Your task to perform on an android device: turn off picture-in-picture Image 0: 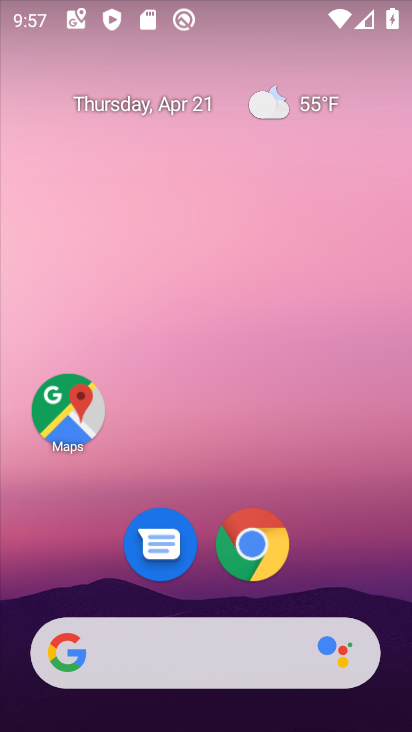
Step 0: drag from (312, 515) to (210, 0)
Your task to perform on an android device: turn off picture-in-picture Image 1: 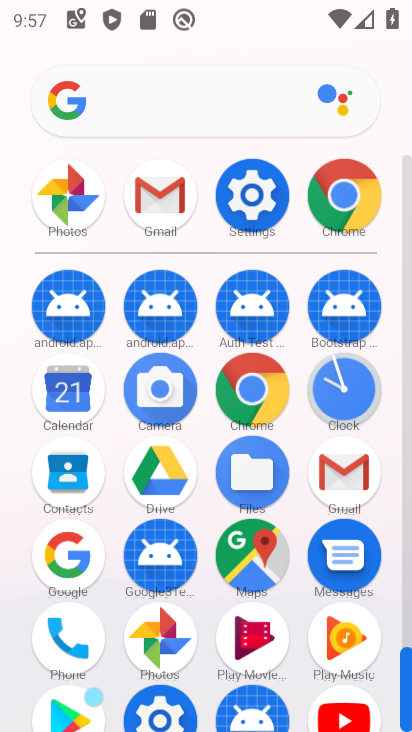
Step 1: click (245, 190)
Your task to perform on an android device: turn off picture-in-picture Image 2: 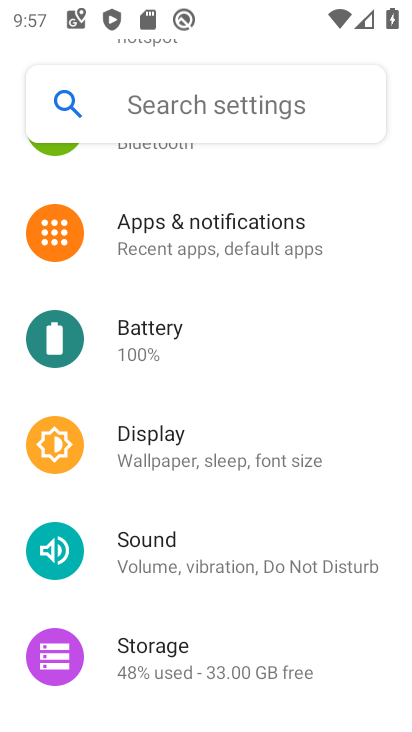
Step 2: click (252, 229)
Your task to perform on an android device: turn off picture-in-picture Image 3: 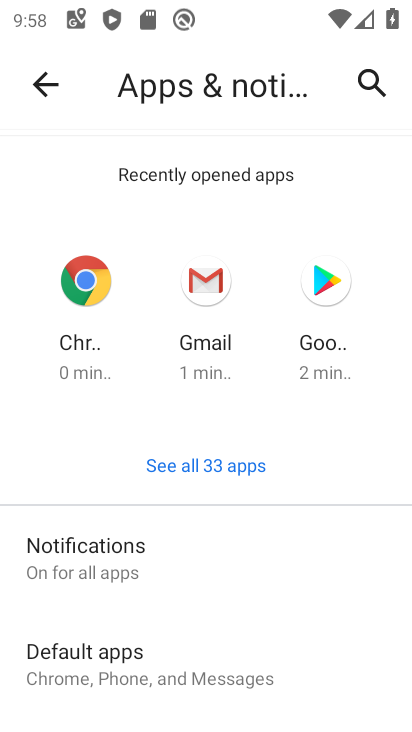
Step 3: drag from (239, 621) to (245, 155)
Your task to perform on an android device: turn off picture-in-picture Image 4: 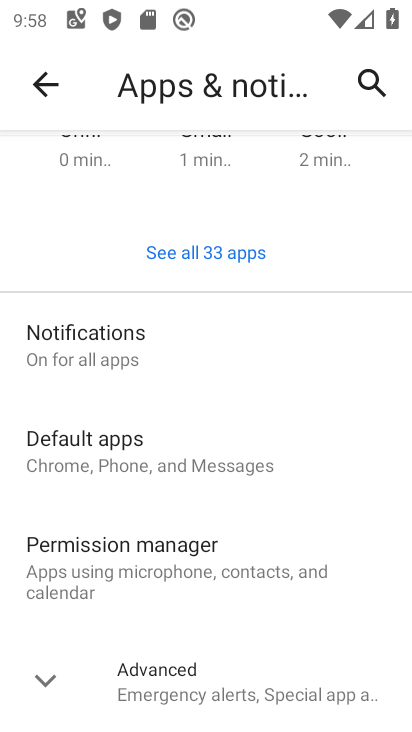
Step 4: drag from (258, 492) to (252, 140)
Your task to perform on an android device: turn off picture-in-picture Image 5: 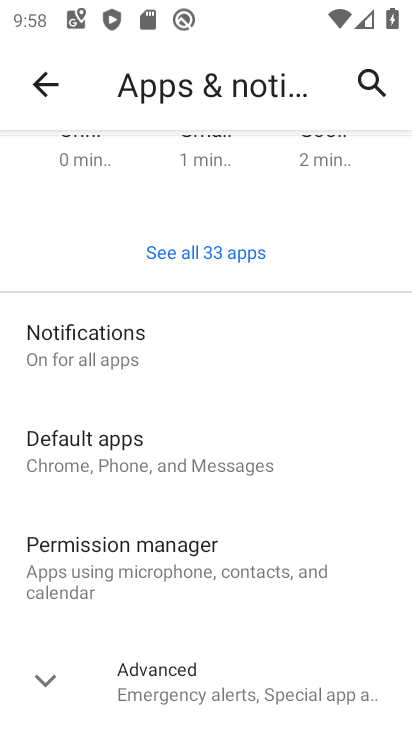
Step 5: drag from (247, 509) to (247, 198)
Your task to perform on an android device: turn off picture-in-picture Image 6: 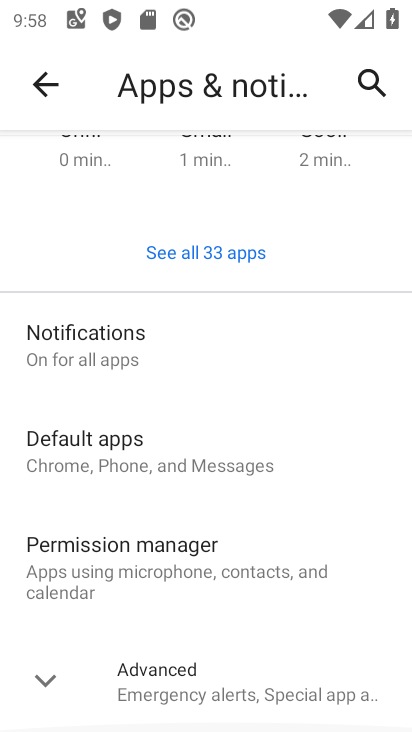
Step 6: click (41, 677)
Your task to perform on an android device: turn off picture-in-picture Image 7: 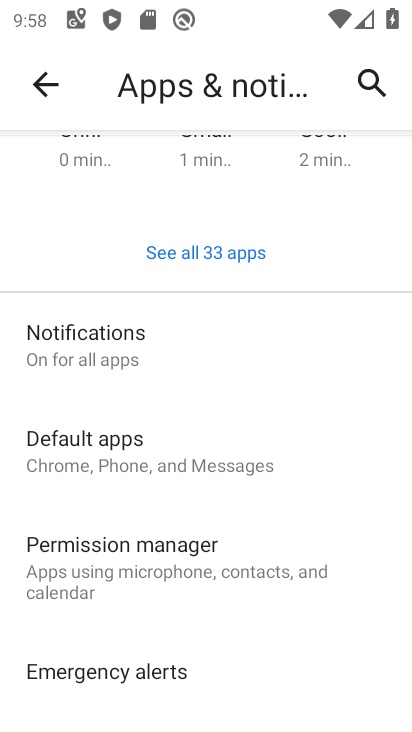
Step 7: drag from (259, 597) to (297, 184)
Your task to perform on an android device: turn off picture-in-picture Image 8: 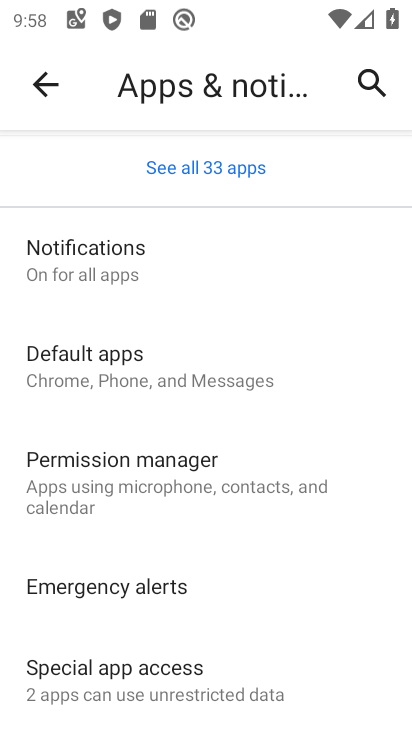
Step 8: click (208, 676)
Your task to perform on an android device: turn off picture-in-picture Image 9: 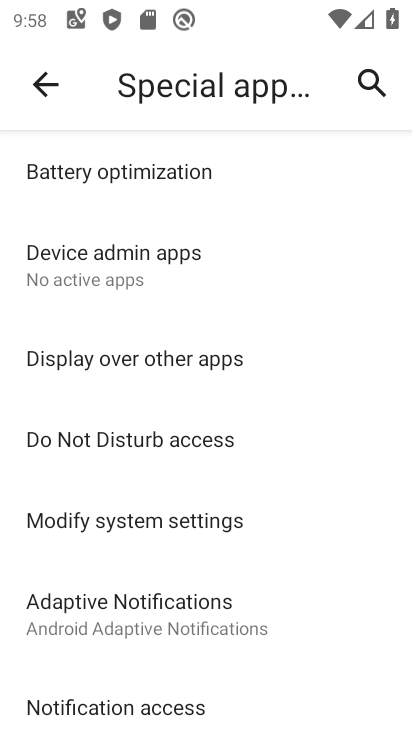
Step 9: drag from (268, 486) to (274, 240)
Your task to perform on an android device: turn off picture-in-picture Image 10: 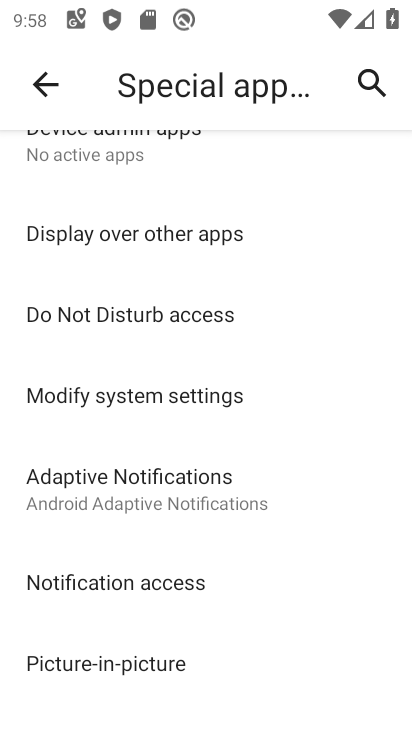
Step 10: drag from (255, 601) to (279, 242)
Your task to perform on an android device: turn off picture-in-picture Image 11: 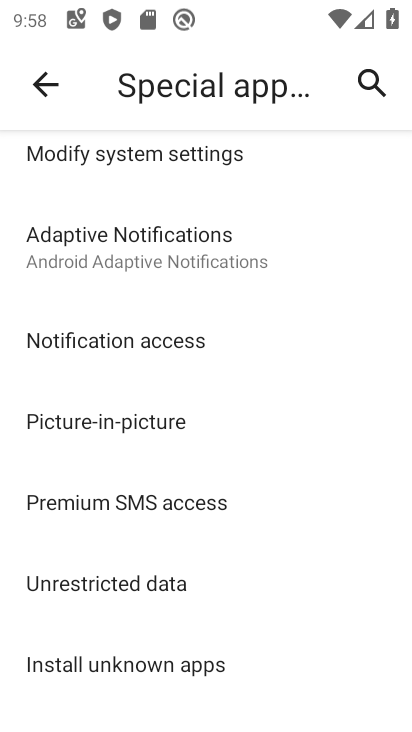
Step 11: click (138, 423)
Your task to perform on an android device: turn off picture-in-picture Image 12: 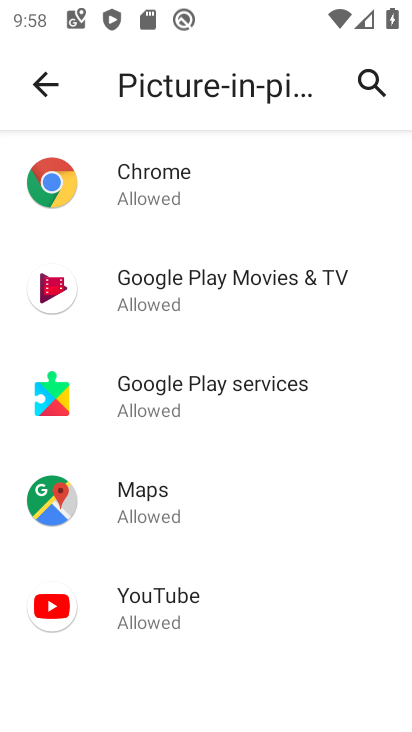
Step 12: click (197, 181)
Your task to perform on an android device: turn off picture-in-picture Image 13: 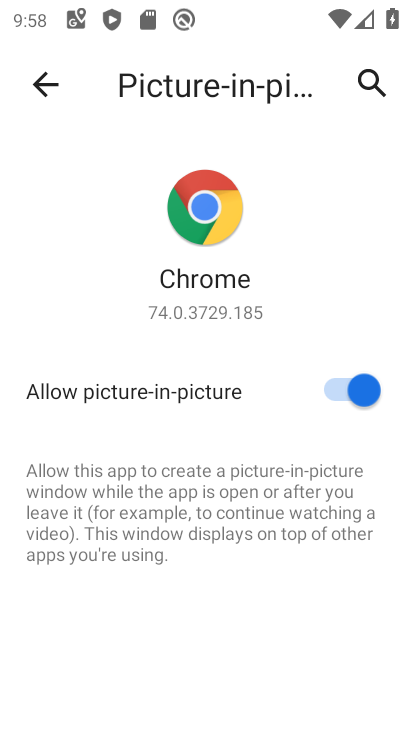
Step 13: click (330, 365)
Your task to perform on an android device: turn off picture-in-picture Image 14: 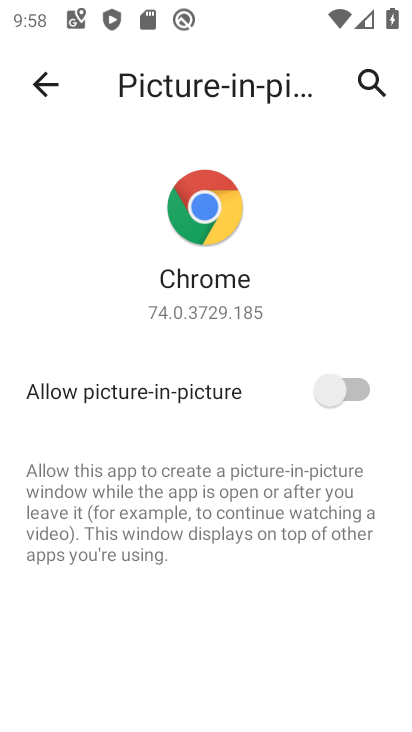
Step 14: click (31, 76)
Your task to perform on an android device: turn off picture-in-picture Image 15: 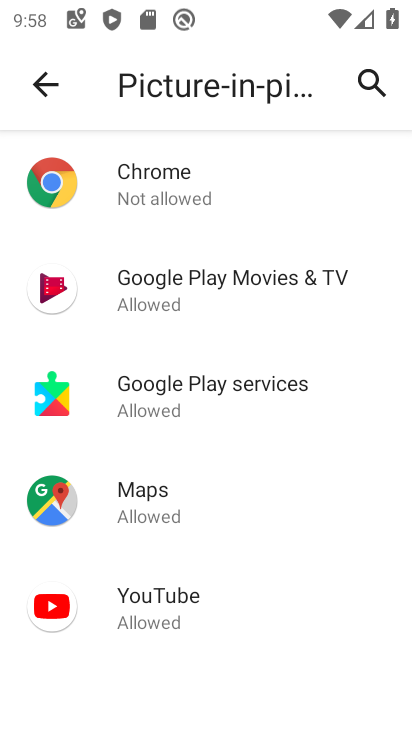
Step 15: click (184, 265)
Your task to perform on an android device: turn off picture-in-picture Image 16: 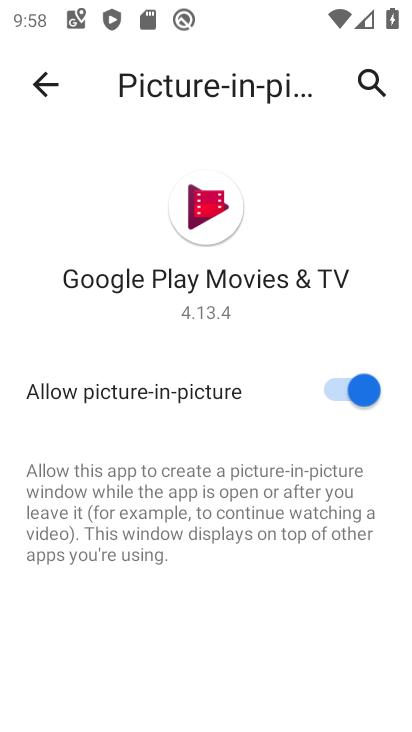
Step 16: click (340, 387)
Your task to perform on an android device: turn off picture-in-picture Image 17: 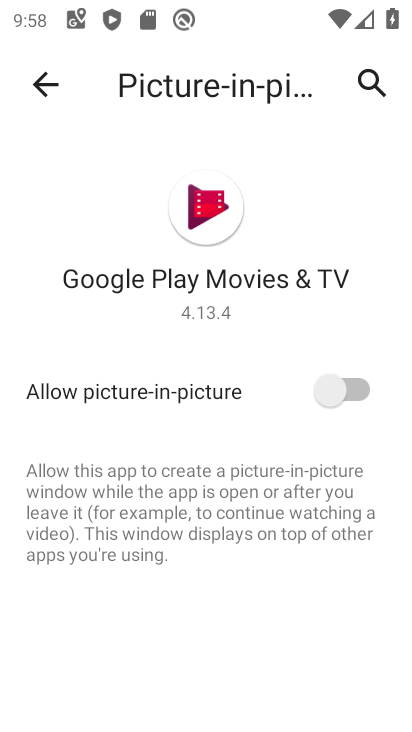
Step 17: click (39, 95)
Your task to perform on an android device: turn off picture-in-picture Image 18: 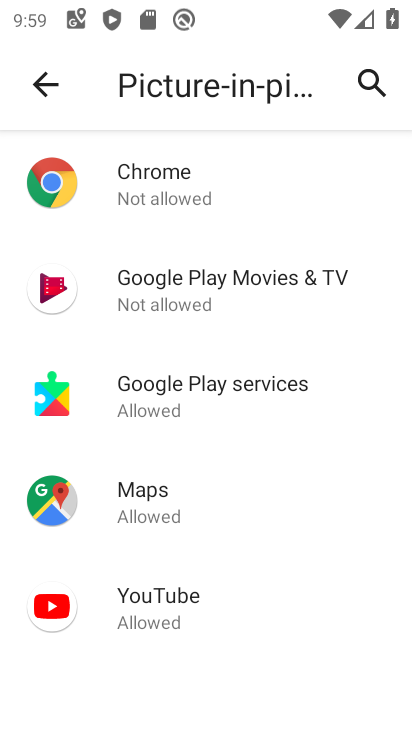
Step 18: click (213, 392)
Your task to perform on an android device: turn off picture-in-picture Image 19: 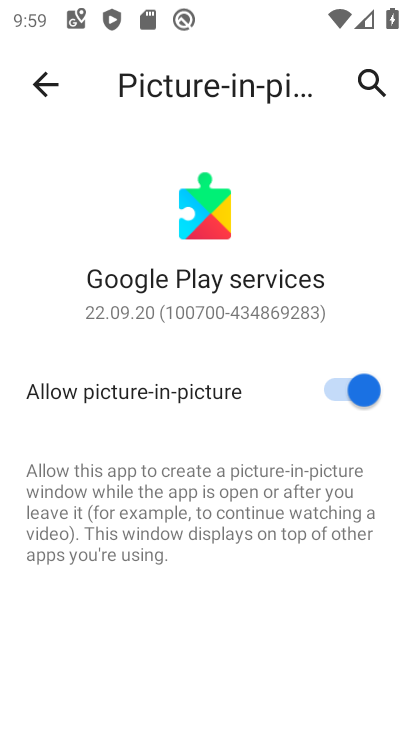
Step 19: click (345, 393)
Your task to perform on an android device: turn off picture-in-picture Image 20: 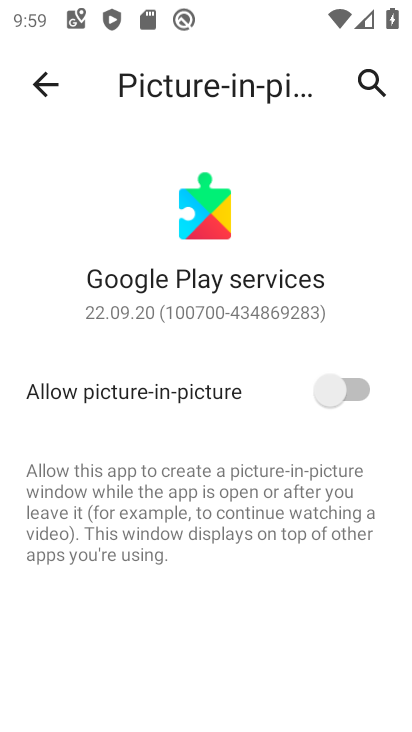
Step 20: click (51, 72)
Your task to perform on an android device: turn off picture-in-picture Image 21: 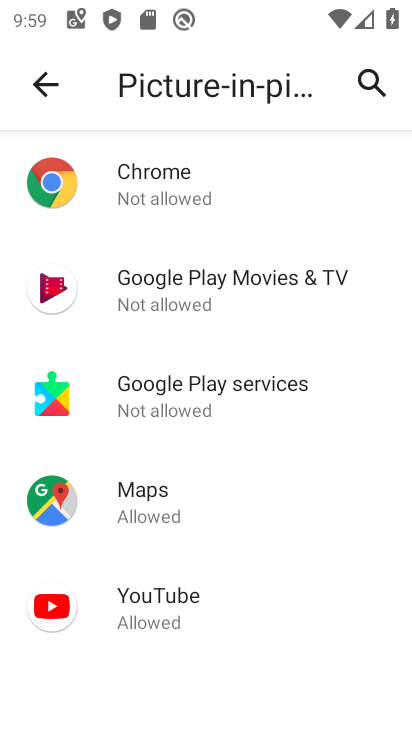
Step 21: click (187, 516)
Your task to perform on an android device: turn off picture-in-picture Image 22: 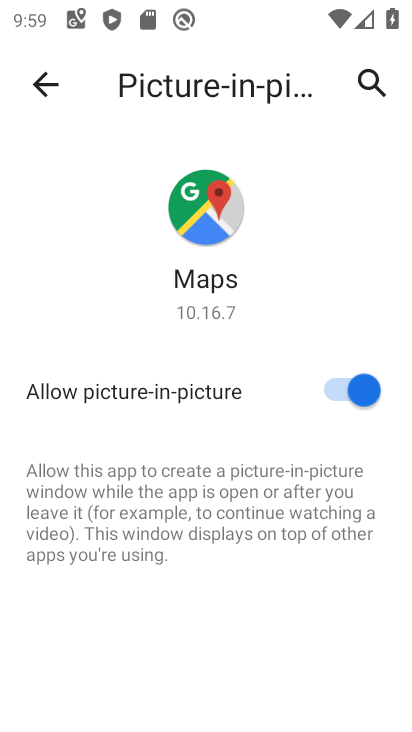
Step 22: click (348, 390)
Your task to perform on an android device: turn off picture-in-picture Image 23: 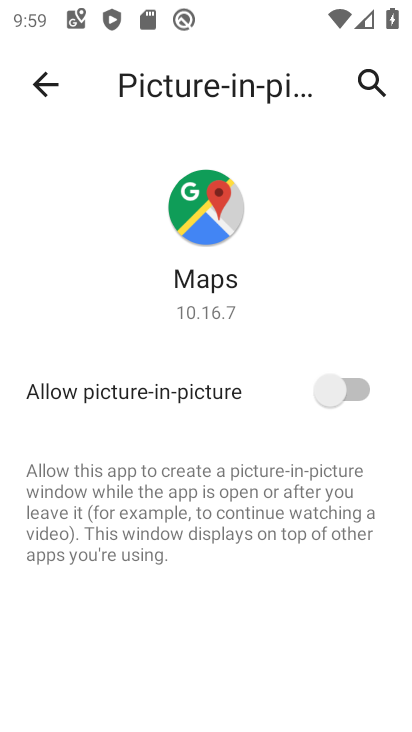
Step 23: click (33, 87)
Your task to perform on an android device: turn off picture-in-picture Image 24: 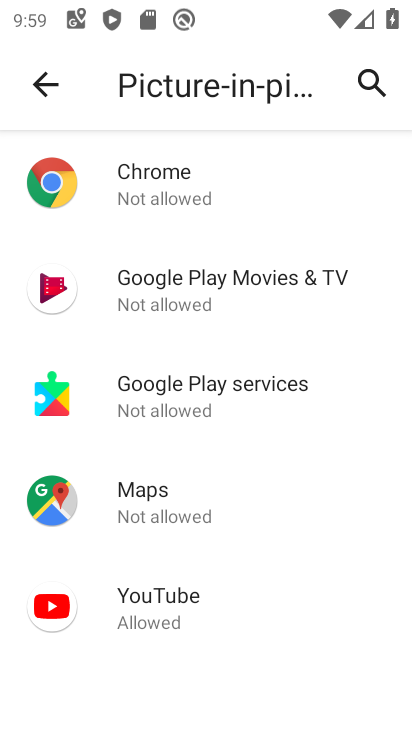
Step 24: click (174, 603)
Your task to perform on an android device: turn off picture-in-picture Image 25: 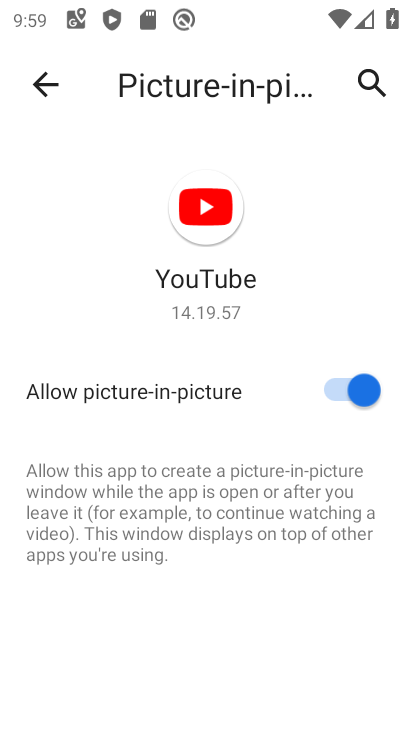
Step 25: click (338, 404)
Your task to perform on an android device: turn off picture-in-picture Image 26: 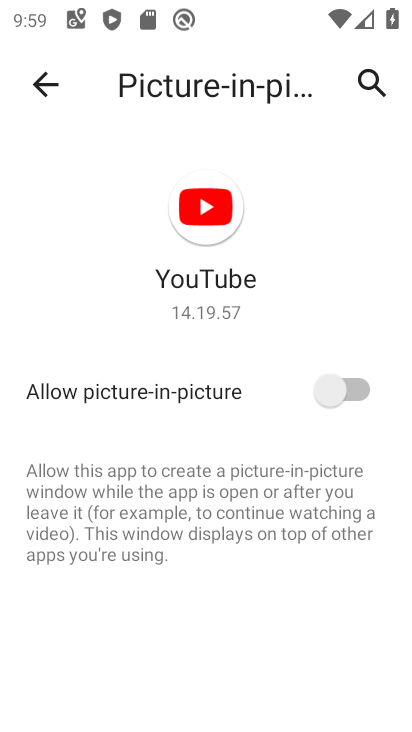
Step 26: click (52, 89)
Your task to perform on an android device: turn off picture-in-picture Image 27: 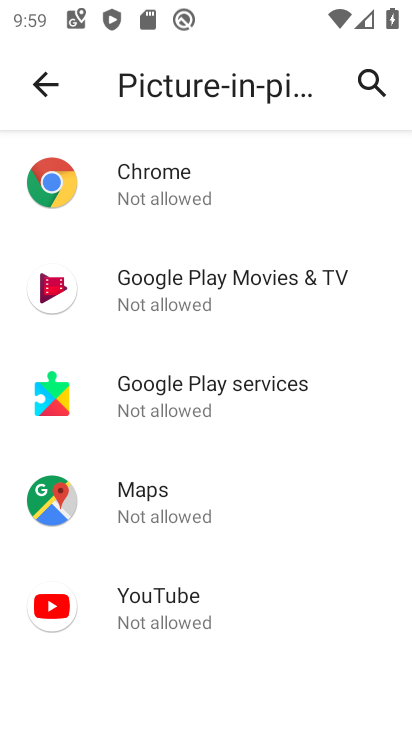
Step 27: task complete